Your task to perform on an android device: check out phone information Image 0: 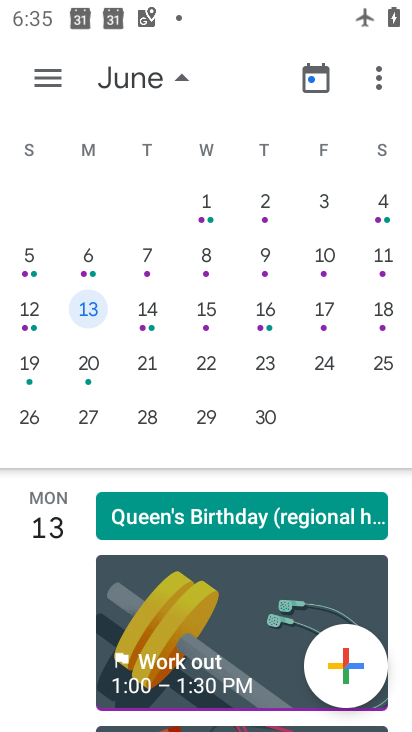
Step 0: press home button
Your task to perform on an android device: check out phone information Image 1: 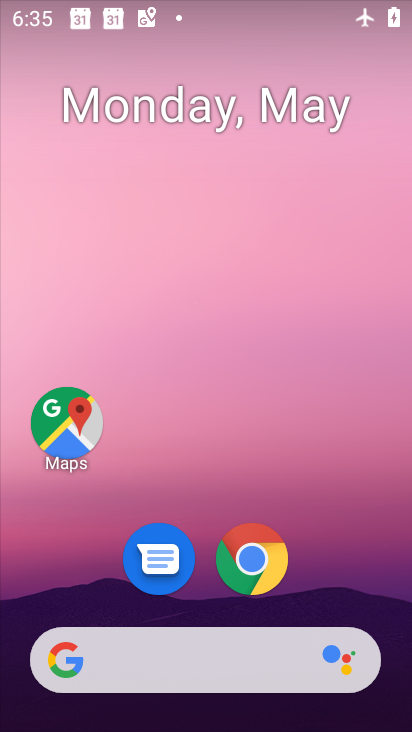
Step 1: drag from (392, 649) to (302, 52)
Your task to perform on an android device: check out phone information Image 2: 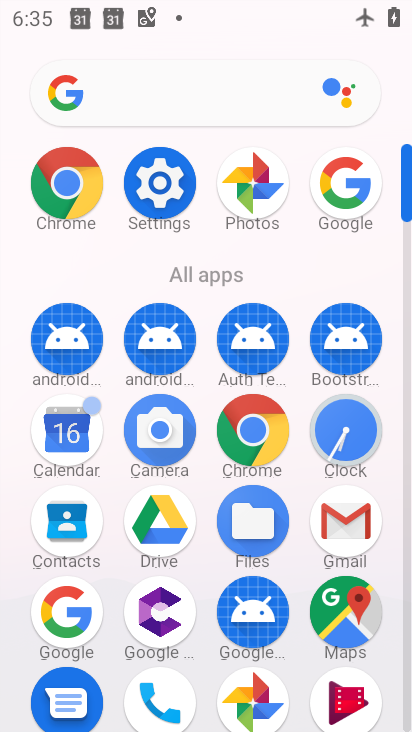
Step 2: click (157, 204)
Your task to perform on an android device: check out phone information Image 3: 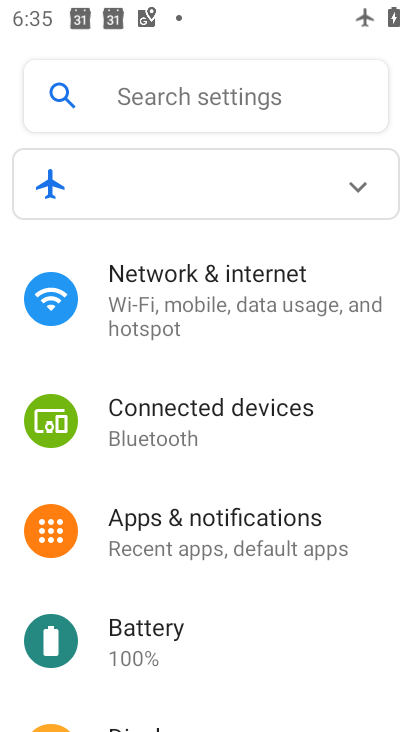
Step 3: drag from (151, 663) to (170, 64)
Your task to perform on an android device: check out phone information Image 4: 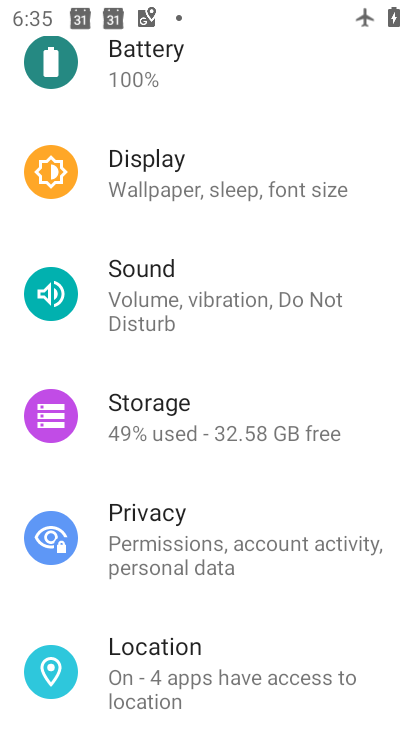
Step 4: drag from (111, 603) to (177, 66)
Your task to perform on an android device: check out phone information Image 5: 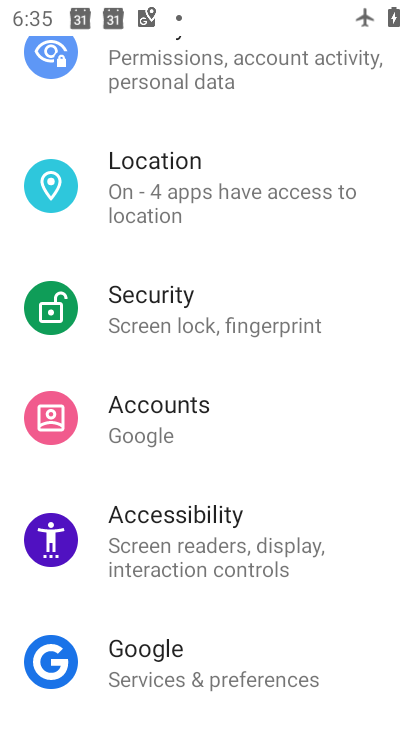
Step 5: drag from (137, 667) to (209, 38)
Your task to perform on an android device: check out phone information Image 6: 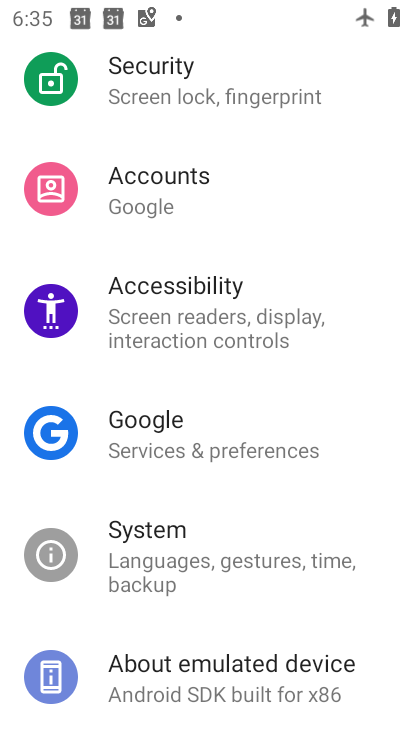
Step 6: click (203, 674)
Your task to perform on an android device: check out phone information Image 7: 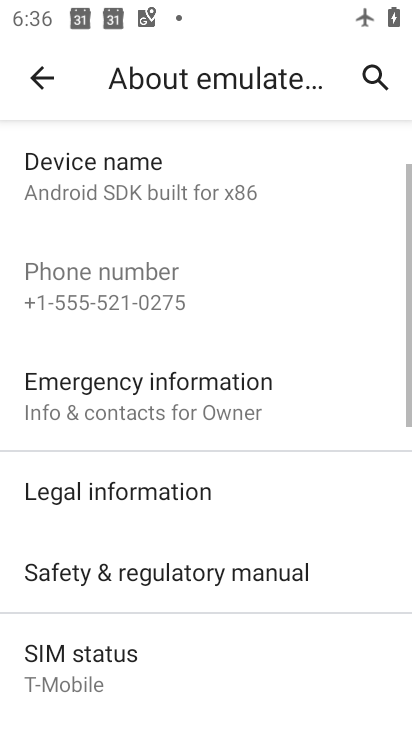
Step 7: task complete